Your task to perform on an android device: turn on airplane mode Image 0: 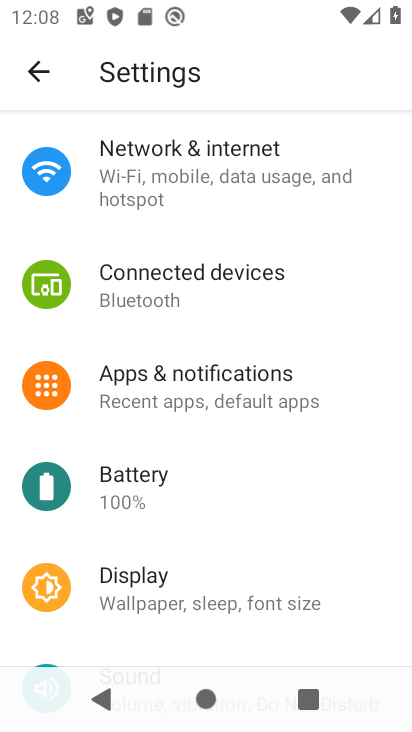
Step 0: click (212, 170)
Your task to perform on an android device: turn on airplane mode Image 1: 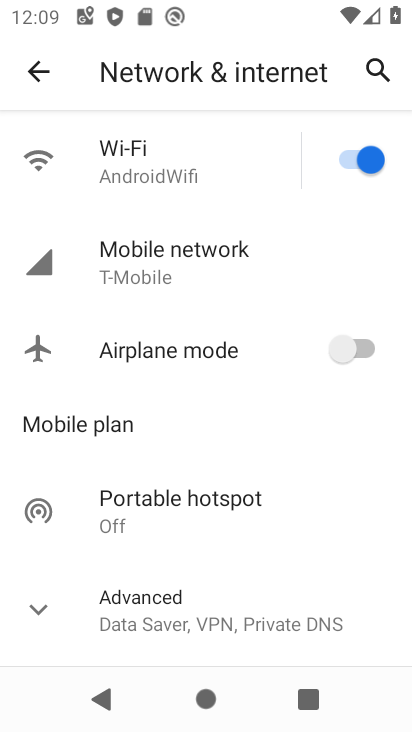
Step 1: click (364, 340)
Your task to perform on an android device: turn on airplane mode Image 2: 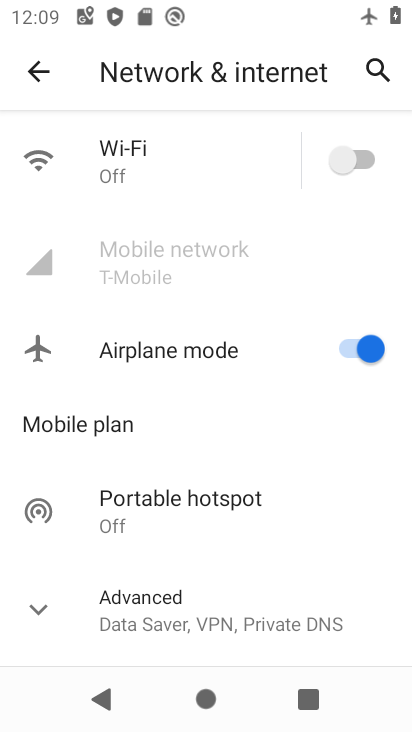
Step 2: task complete